Your task to perform on an android device: find photos in the google photos app Image 0: 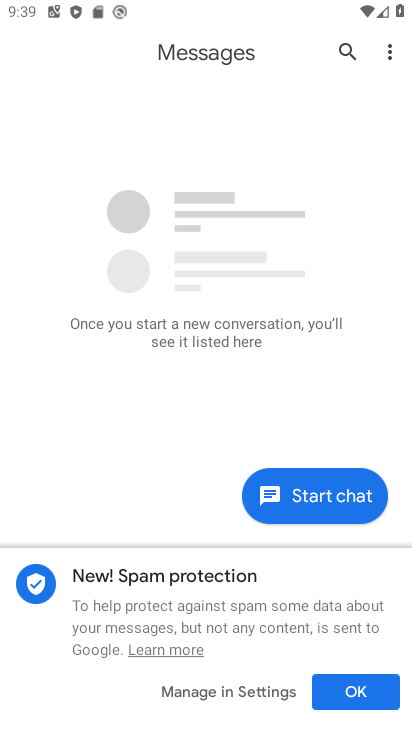
Step 0: drag from (209, 342) to (295, 49)
Your task to perform on an android device: find photos in the google photos app Image 1: 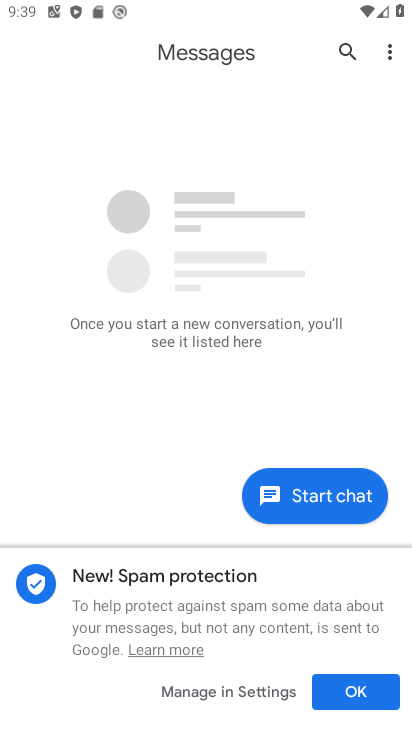
Step 1: press home button
Your task to perform on an android device: find photos in the google photos app Image 2: 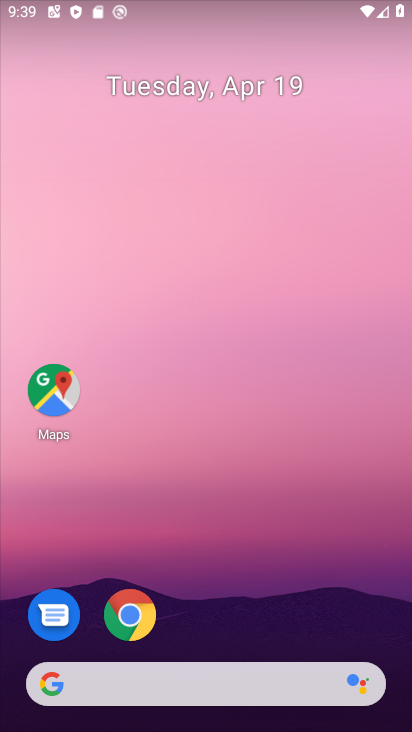
Step 2: drag from (186, 645) to (285, 80)
Your task to perform on an android device: find photos in the google photos app Image 3: 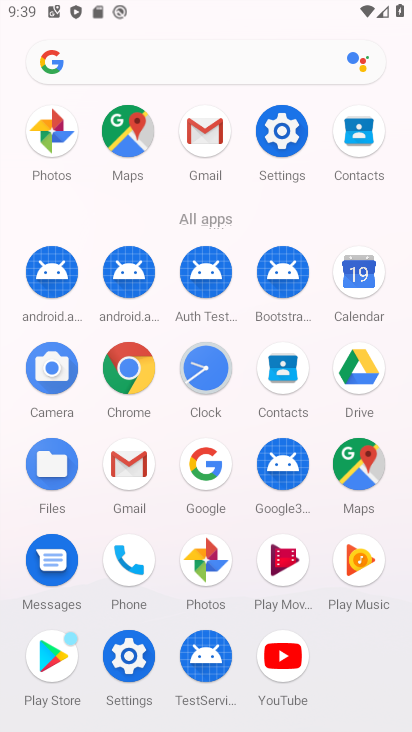
Step 3: click (201, 564)
Your task to perform on an android device: find photos in the google photos app Image 4: 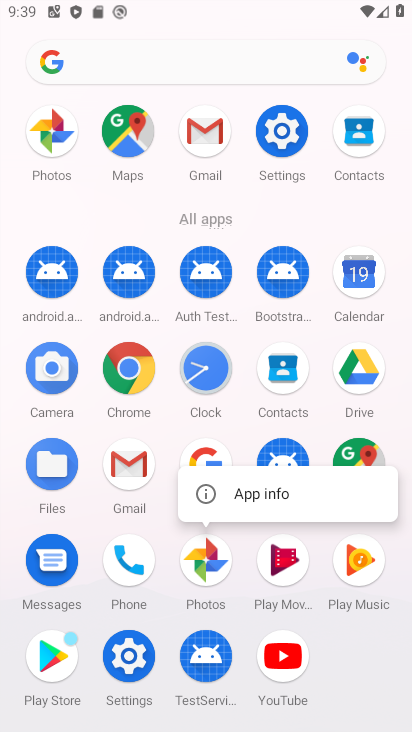
Step 4: click (260, 493)
Your task to perform on an android device: find photos in the google photos app Image 5: 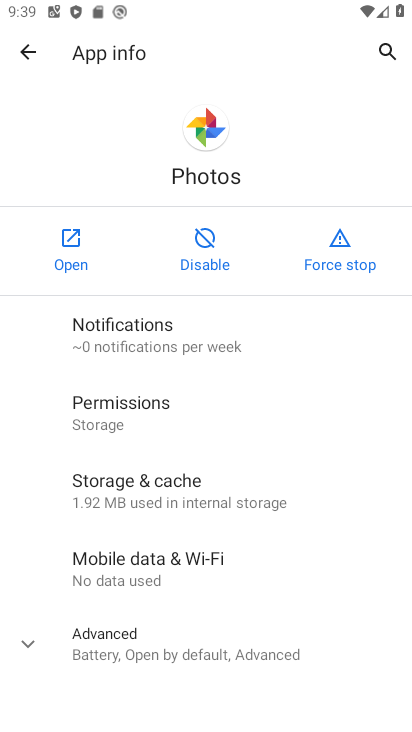
Step 5: click (83, 246)
Your task to perform on an android device: find photos in the google photos app Image 6: 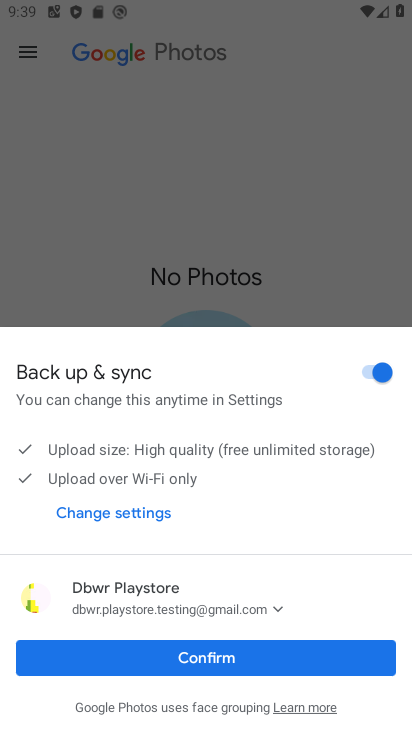
Step 6: drag from (233, 455) to (258, 170)
Your task to perform on an android device: find photos in the google photos app Image 7: 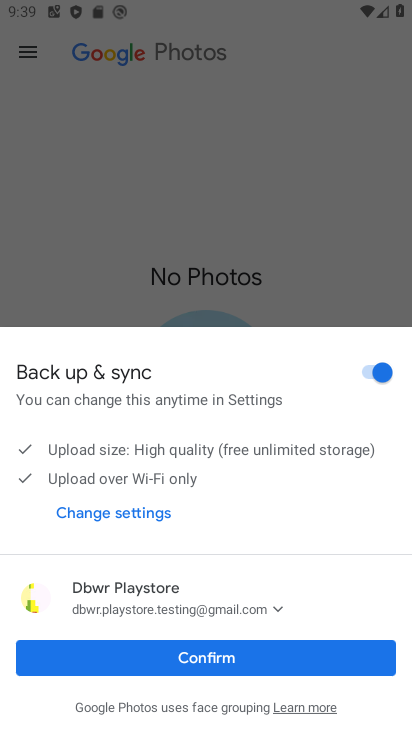
Step 7: drag from (191, 451) to (230, 218)
Your task to perform on an android device: find photos in the google photos app Image 8: 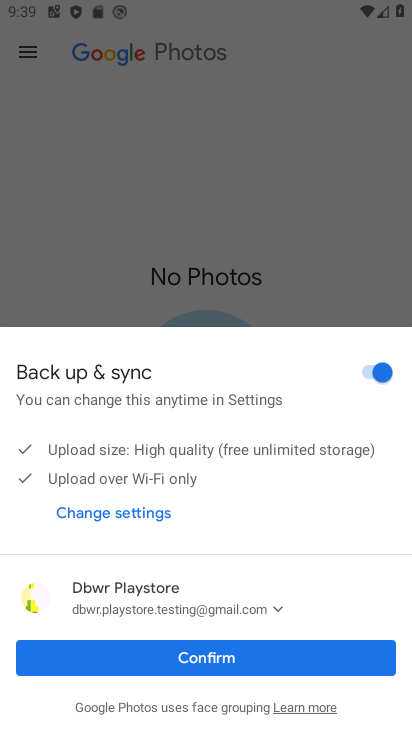
Step 8: drag from (229, 452) to (255, 193)
Your task to perform on an android device: find photos in the google photos app Image 9: 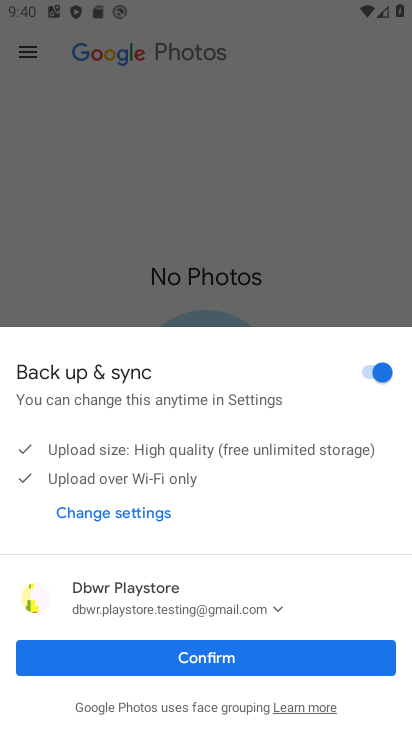
Step 9: drag from (188, 462) to (221, 246)
Your task to perform on an android device: find photos in the google photos app Image 10: 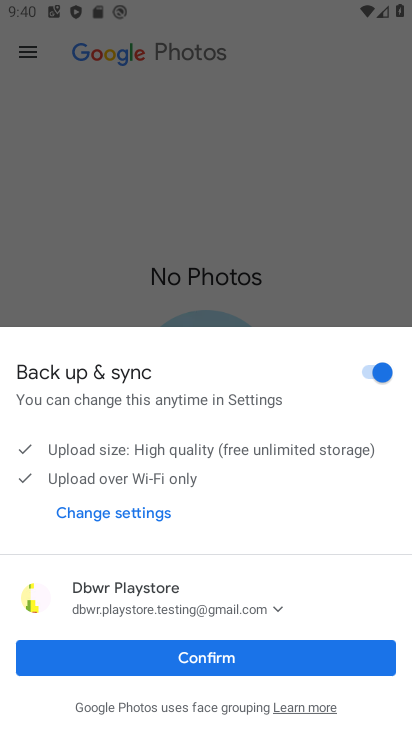
Step 10: drag from (237, 508) to (266, 285)
Your task to perform on an android device: find photos in the google photos app Image 11: 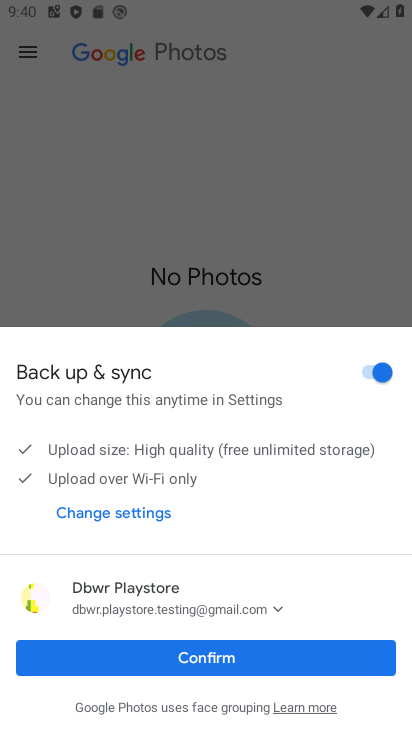
Step 11: drag from (245, 447) to (294, 243)
Your task to perform on an android device: find photos in the google photos app Image 12: 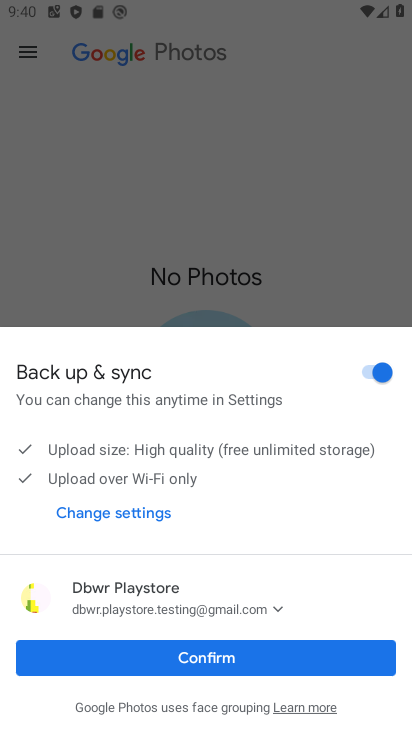
Step 12: drag from (213, 476) to (265, 362)
Your task to perform on an android device: find photos in the google photos app Image 13: 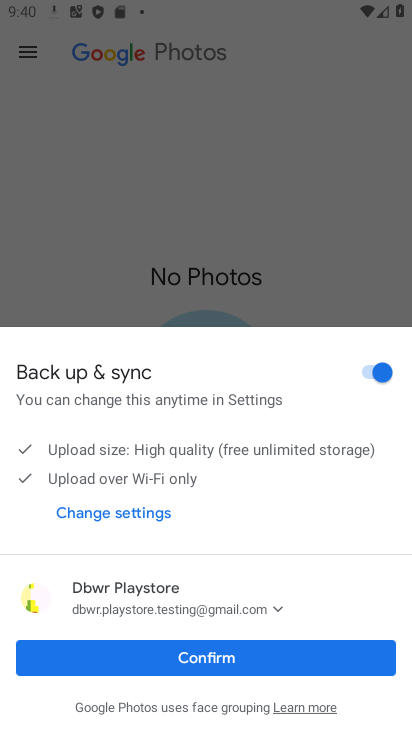
Step 13: click (200, 662)
Your task to perform on an android device: find photos in the google photos app Image 14: 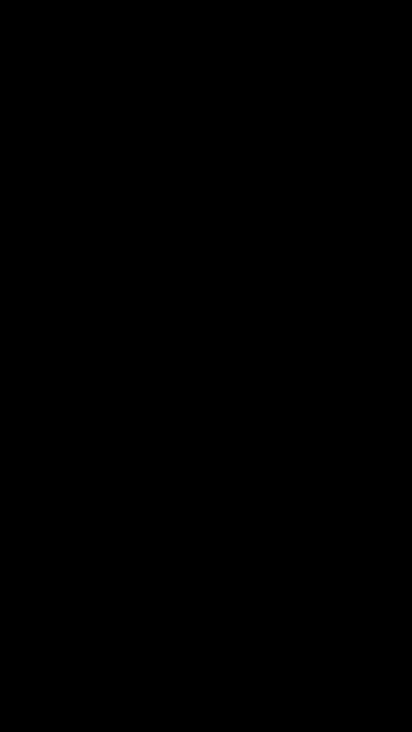
Step 14: drag from (177, 477) to (244, 255)
Your task to perform on an android device: find photos in the google photos app Image 15: 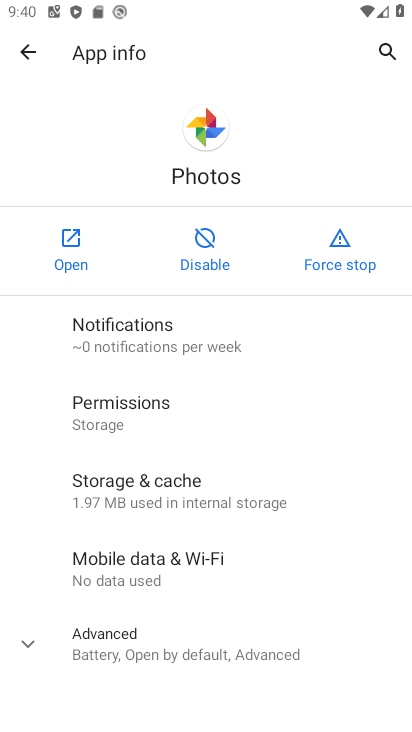
Step 15: click (69, 243)
Your task to perform on an android device: find photos in the google photos app Image 16: 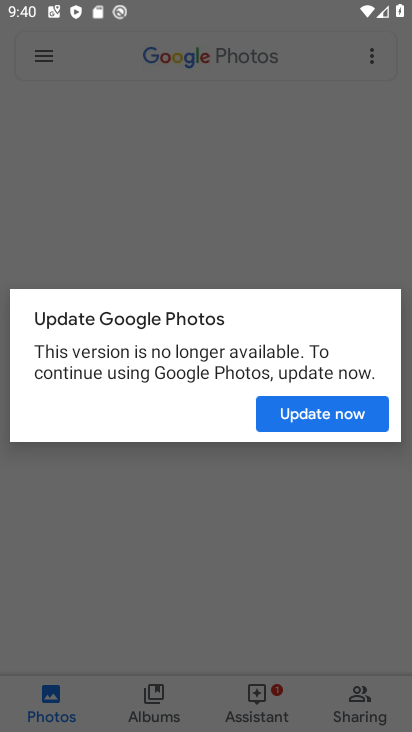
Step 16: task complete